Your task to perform on an android device: turn on wifi Image 0: 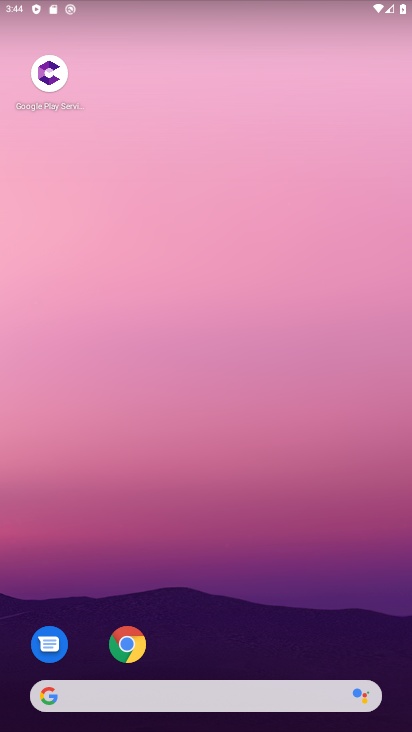
Step 0: drag from (235, 714) to (242, 211)
Your task to perform on an android device: turn on wifi Image 1: 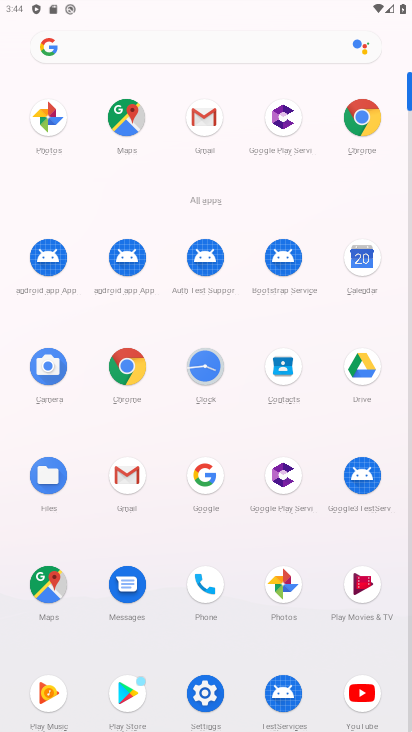
Step 1: click (200, 691)
Your task to perform on an android device: turn on wifi Image 2: 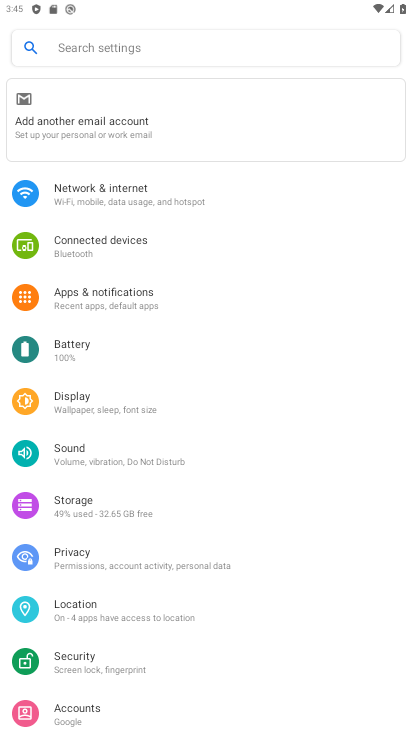
Step 2: click (86, 196)
Your task to perform on an android device: turn on wifi Image 3: 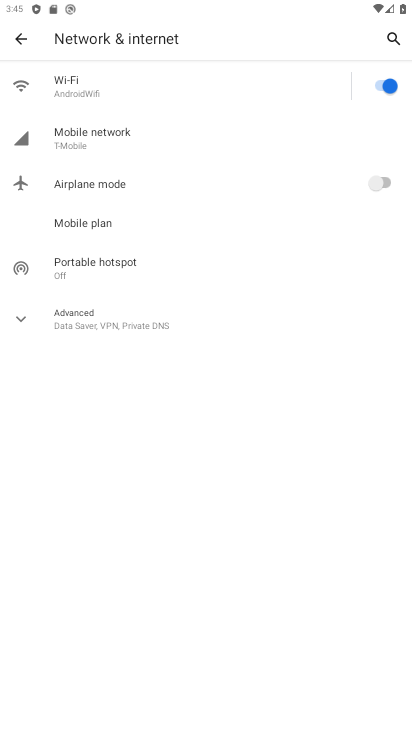
Step 3: click (158, 93)
Your task to perform on an android device: turn on wifi Image 4: 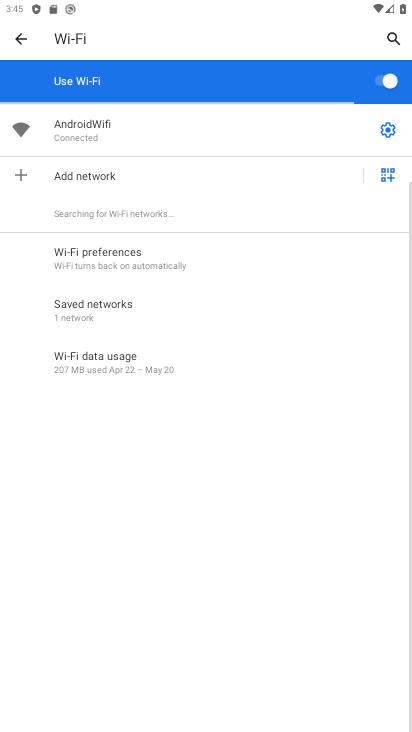
Step 4: click (391, 82)
Your task to perform on an android device: turn on wifi Image 5: 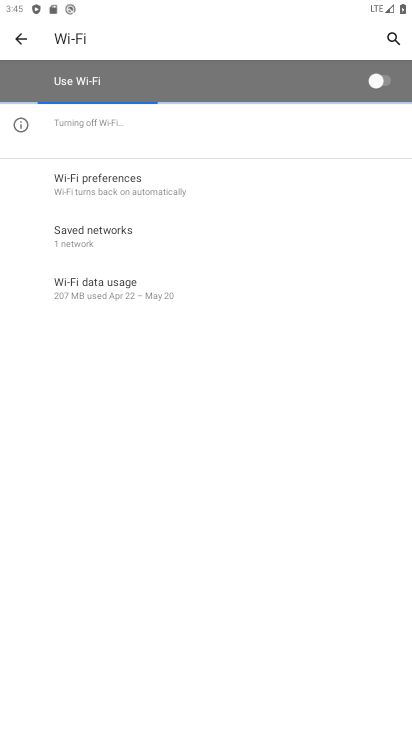
Step 5: task complete